Your task to perform on an android device: Search for seafood restaurants on Google Maps Image 0: 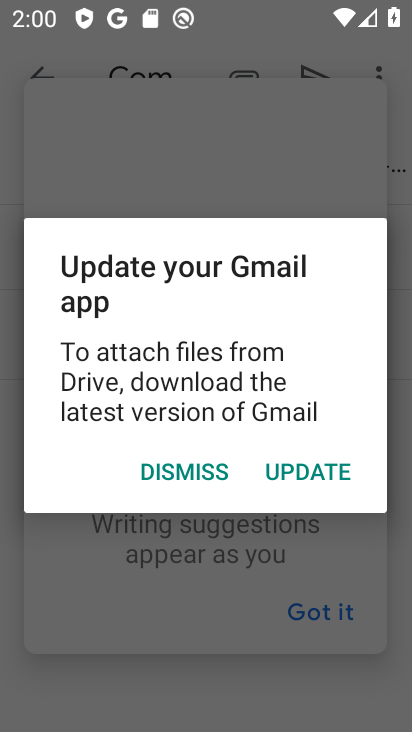
Step 0: click (185, 476)
Your task to perform on an android device: Search for seafood restaurants on Google Maps Image 1: 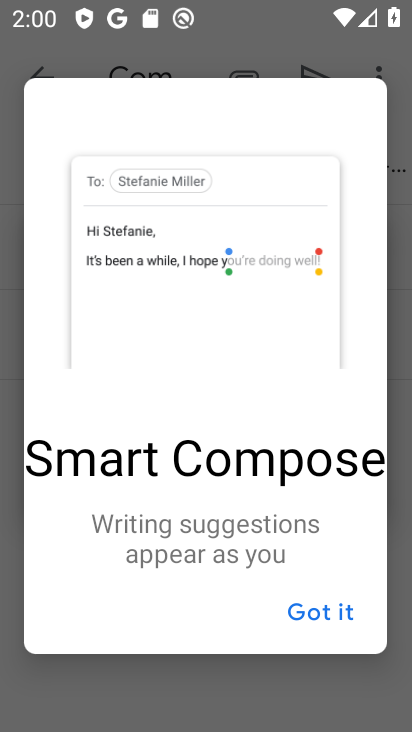
Step 1: click (310, 619)
Your task to perform on an android device: Search for seafood restaurants on Google Maps Image 2: 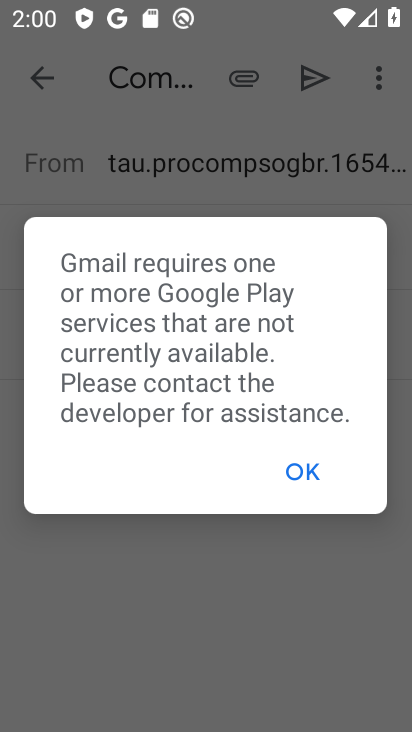
Step 2: press back button
Your task to perform on an android device: Search for seafood restaurants on Google Maps Image 3: 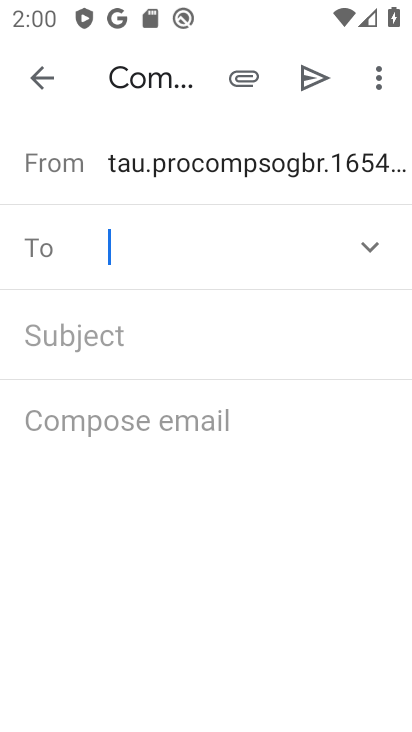
Step 3: press home button
Your task to perform on an android device: Search for seafood restaurants on Google Maps Image 4: 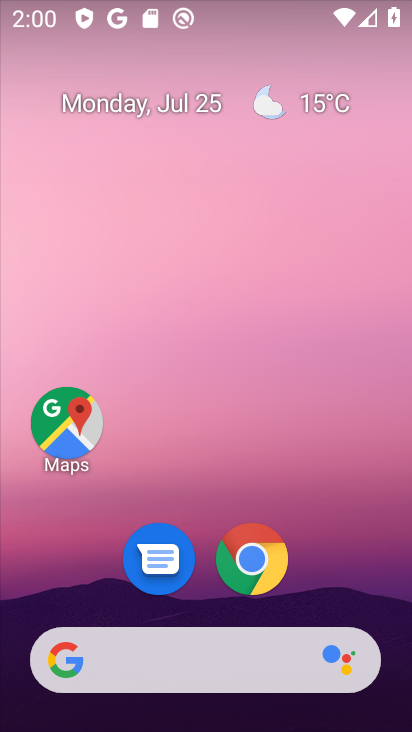
Step 4: click (49, 413)
Your task to perform on an android device: Search for seafood restaurants on Google Maps Image 5: 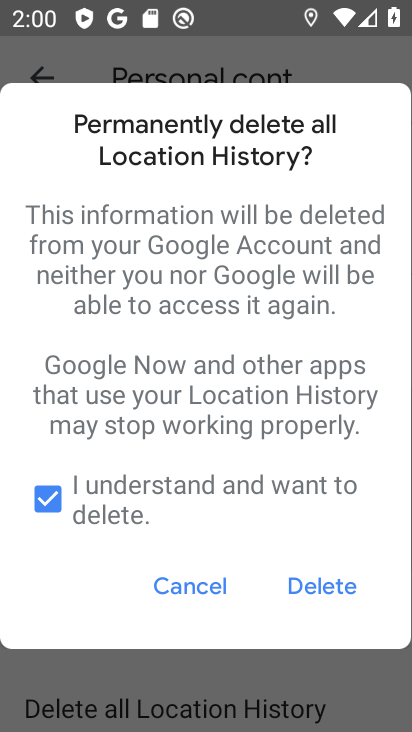
Step 5: click (197, 597)
Your task to perform on an android device: Search for seafood restaurants on Google Maps Image 6: 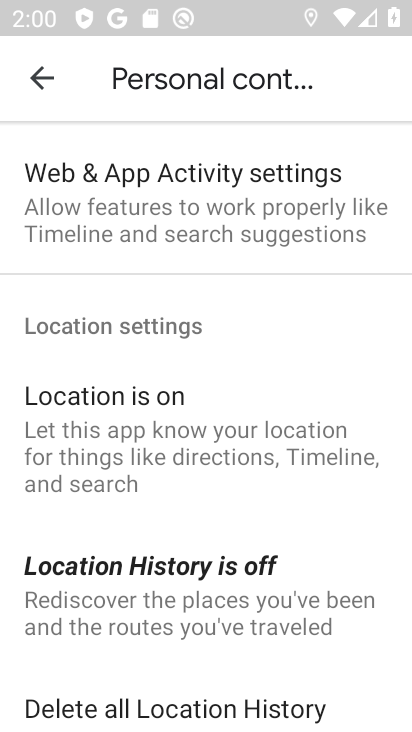
Step 6: click (53, 82)
Your task to perform on an android device: Search for seafood restaurants on Google Maps Image 7: 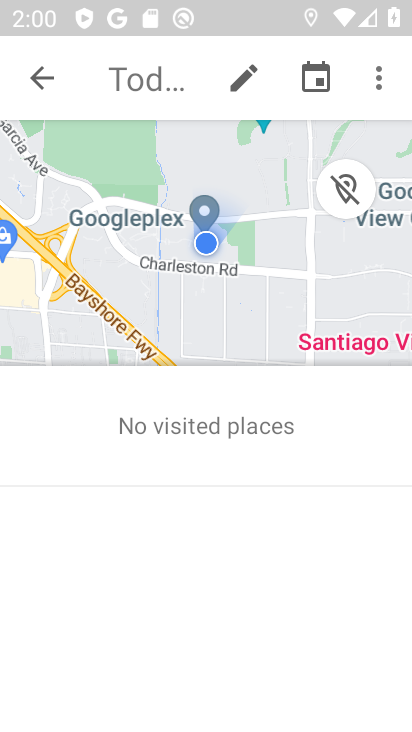
Step 7: click (56, 79)
Your task to perform on an android device: Search for seafood restaurants on Google Maps Image 8: 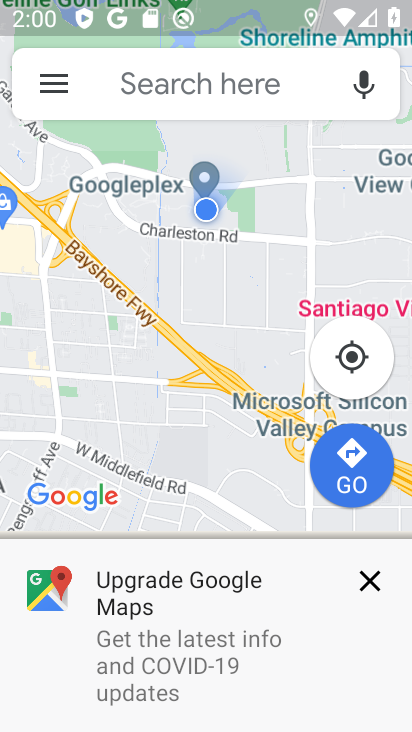
Step 8: click (171, 75)
Your task to perform on an android device: Search for seafood restaurants on Google Maps Image 9: 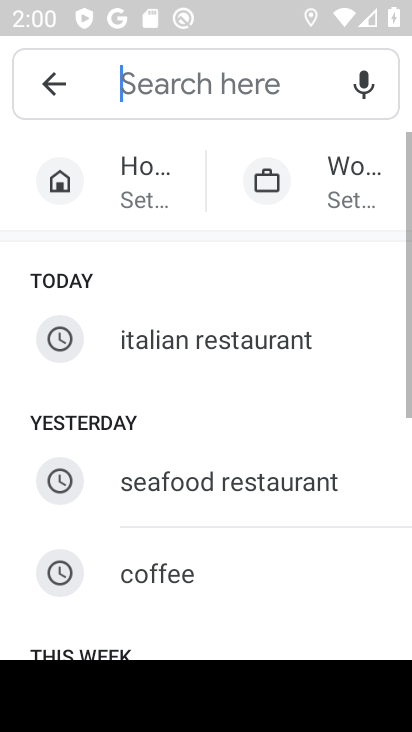
Step 9: click (151, 483)
Your task to perform on an android device: Search for seafood restaurants on Google Maps Image 10: 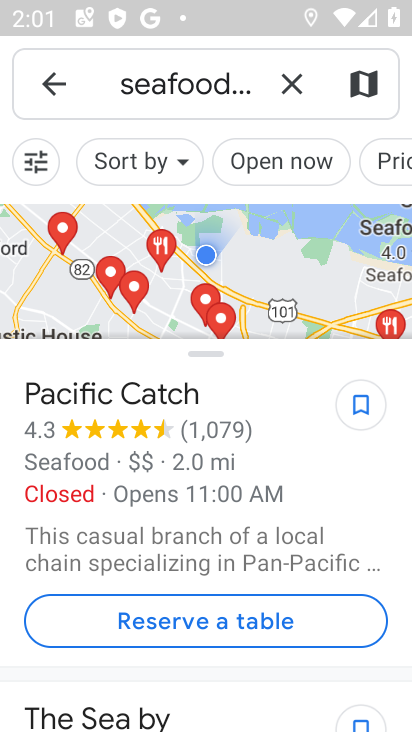
Step 10: task complete